Your task to perform on an android device: toggle priority inbox in the gmail app Image 0: 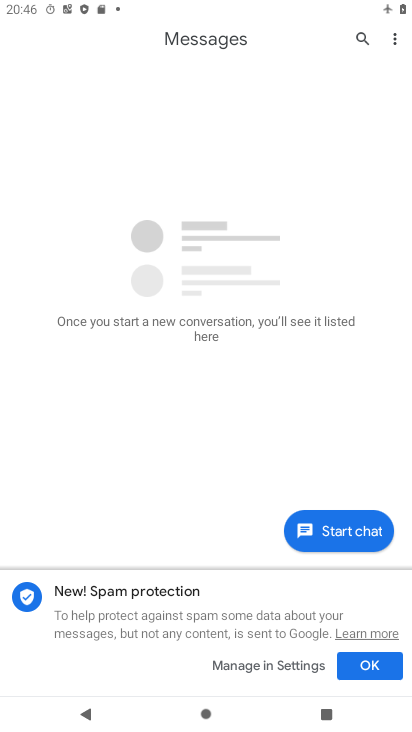
Step 0: press home button
Your task to perform on an android device: toggle priority inbox in the gmail app Image 1: 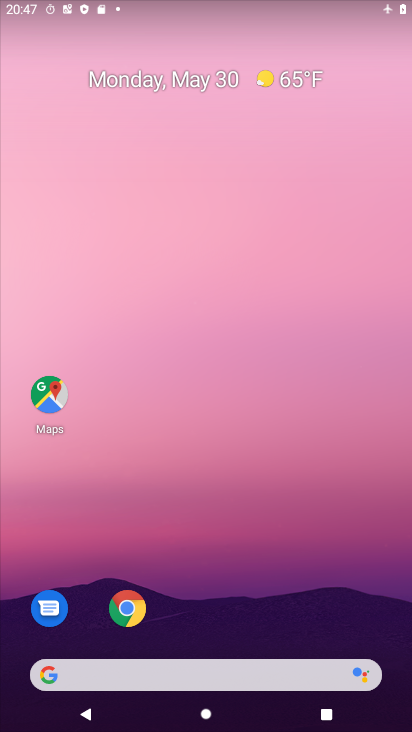
Step 1: drag from (207, 618) to (222, 239)
Your task to perform on an android device: toggle priority inbox in the gmail app Image 2: 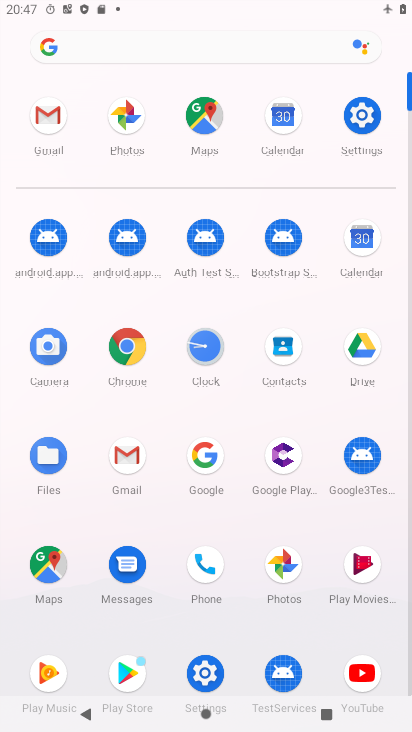
Step 2: click (53, 117)
Your task to perform on an android device: toggle priority inbox in the gmail app Image 3: 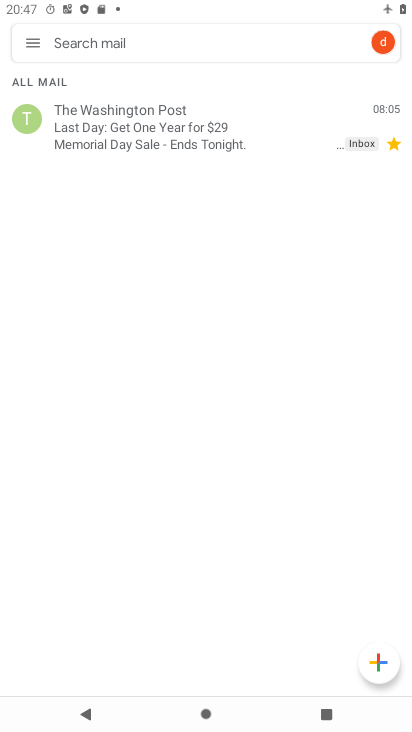
Step 3: click (16, 48)
Your task to perform on an android device: toggle priority inbox in the gmail app Image 4: 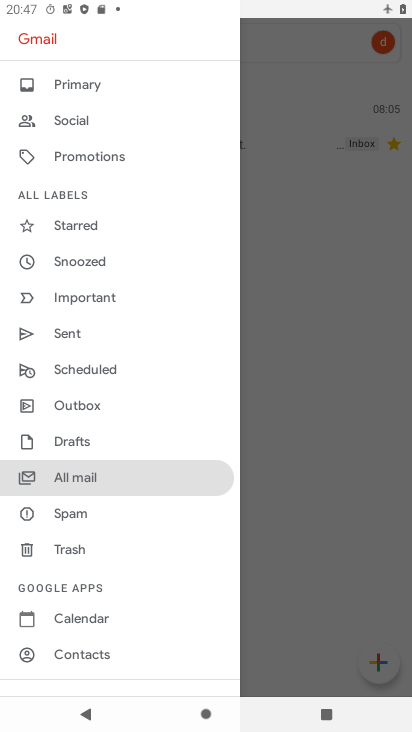
Step 4: drag from (130, 623) to (140, 324)
Your task to perform on an android device: toggle priority inbox in the gmail app Image 5: 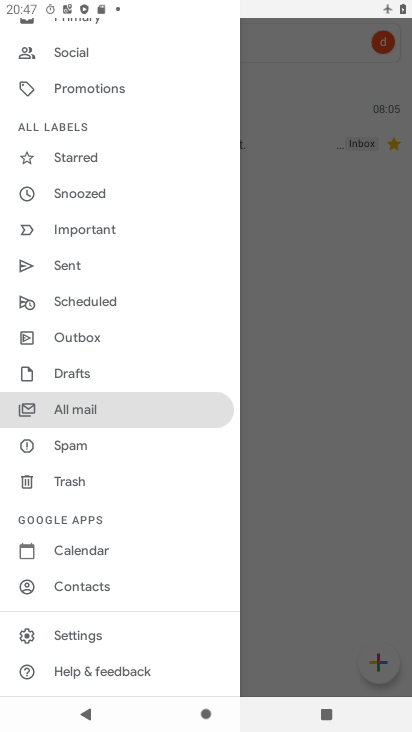
Step 5: click (105, 635)
Your task to perform on an android device: toggle priority inbox in the gmail app Image 6: 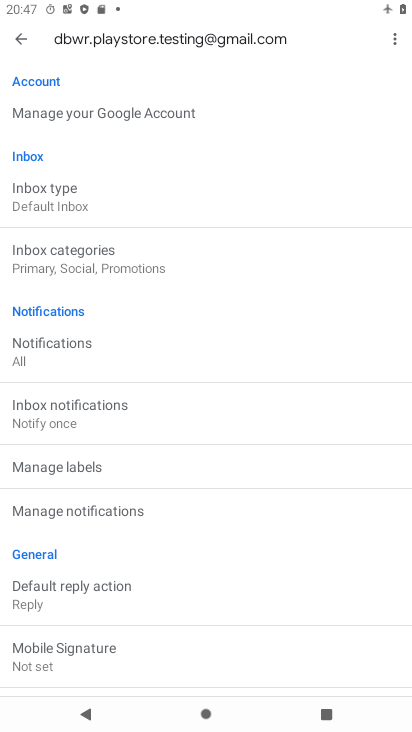
Step 6: click (137, 192)
Your task to perform on an android device: toggle priority inbox in the gmail app Image 7: 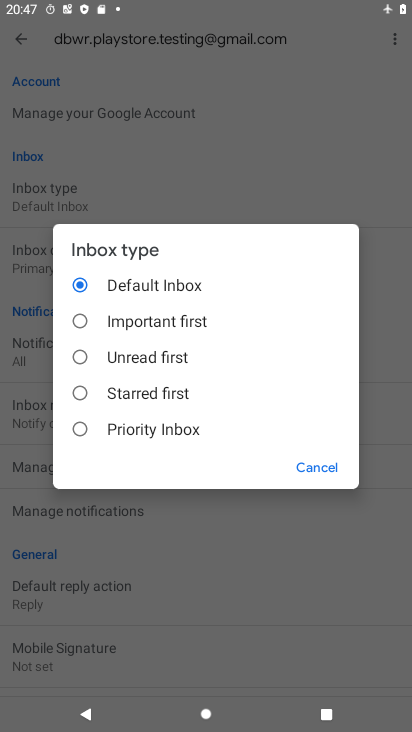
Step 7: click (145, 429)
Your task to perform on an android device: toggle priority inbox in the gmail app Image 8: 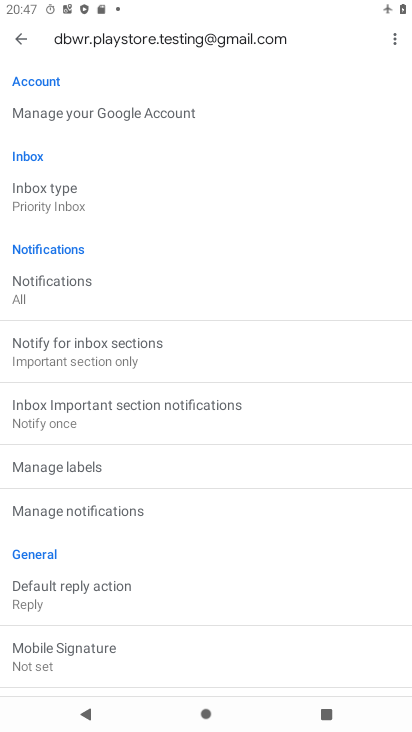
Step 8: task complete